Your task to perform on an android device: Go to CNN.com Image 0: 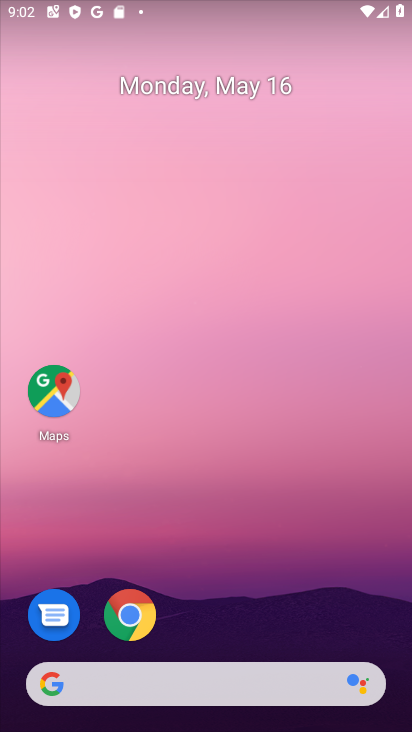
Step 0: click (131, 603)
Your task to perform on an android device: Go to CNN.com Image 1: 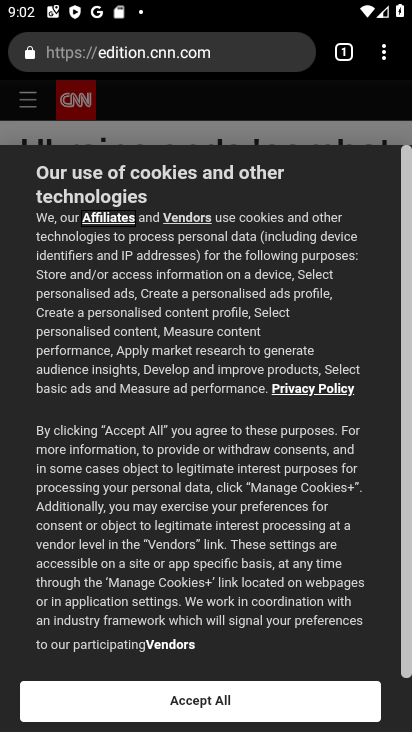
Step 1: task complete